Your task to perform on an android device: Open Chrome and go to settings Image 0: 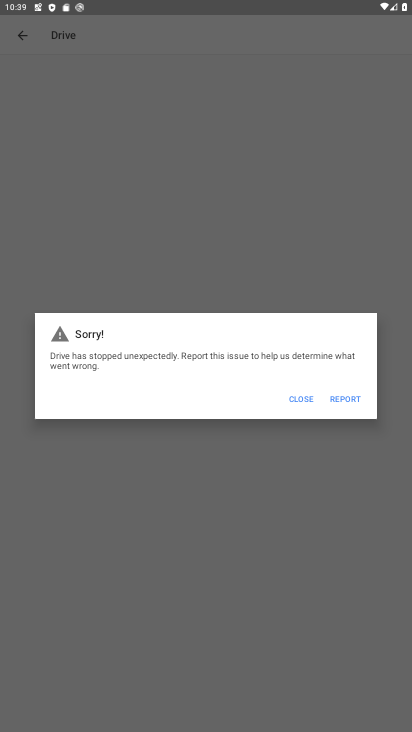
Step 0: press home button
Your task to perform on an android device: Open Chrome and go to settings Image 1: 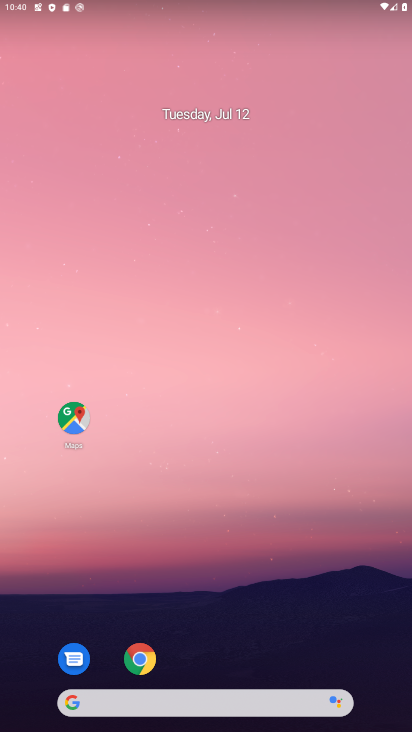
Step 1: click (148, 655)
Your task to perform on an android device: Open Chrome and go to settings Image 2: 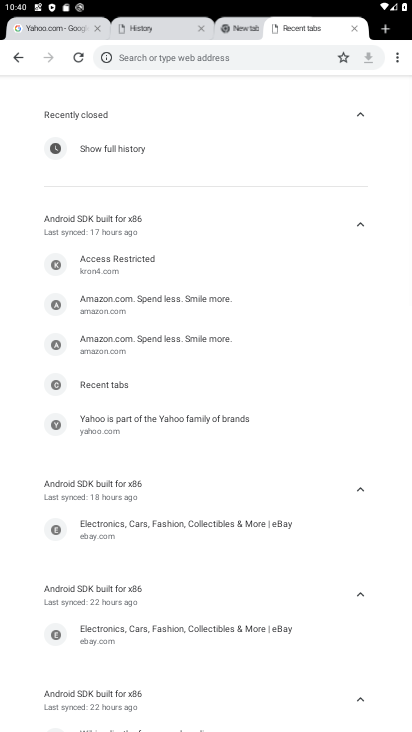
Step 2: click (393, 56)
Your task to perform on an android device: Open Chrome and go to settings Image 3: 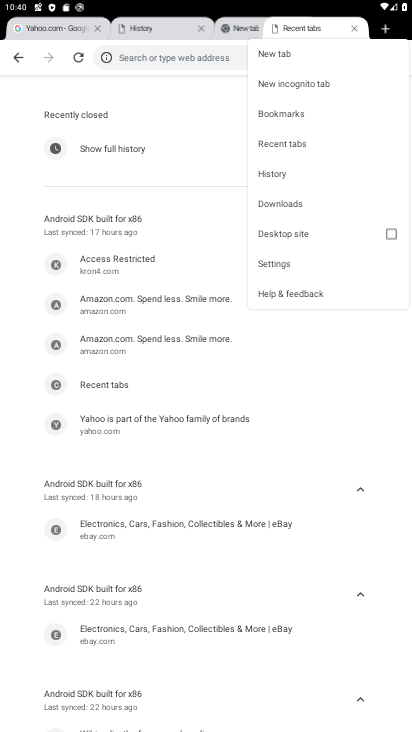
Step 3: click (270, 254)
Your task to perform on an android device: Open Chrome and go to settings Image 4: 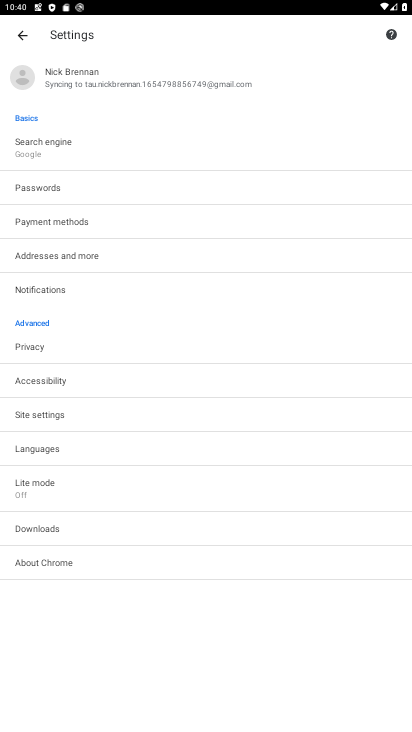
Step 4: task complete